Your task to perform on an android device: Open the stopwatch Image 0: 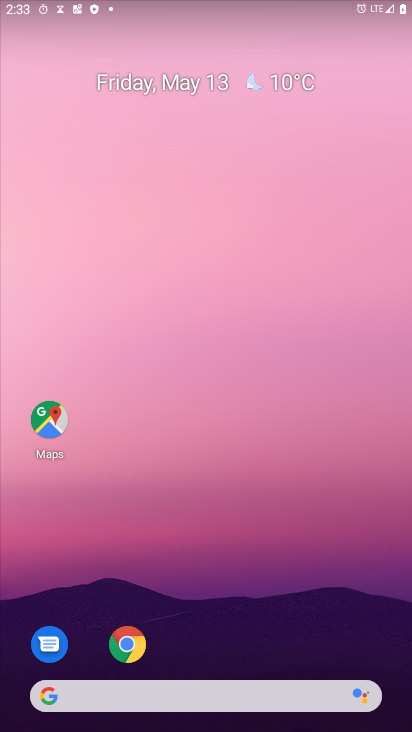
Step 0: drag from (243, 725) to (243, 134)
Your task to perform on an android device: Open the stopwatch Image 1: 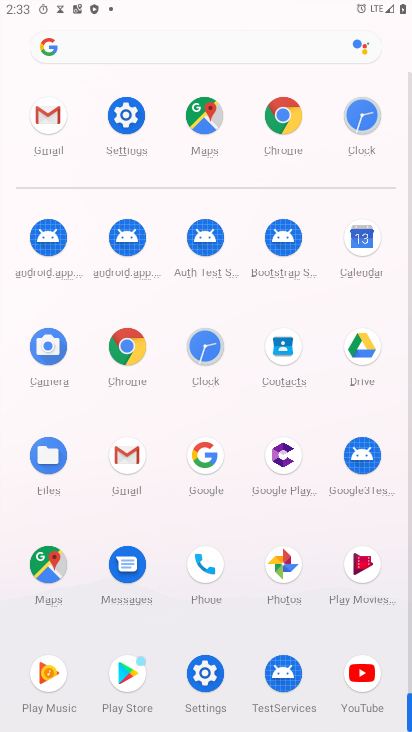
Step 1: click (202, 342)
Your task to perform on an android device: Open the stopwatch Image 2: 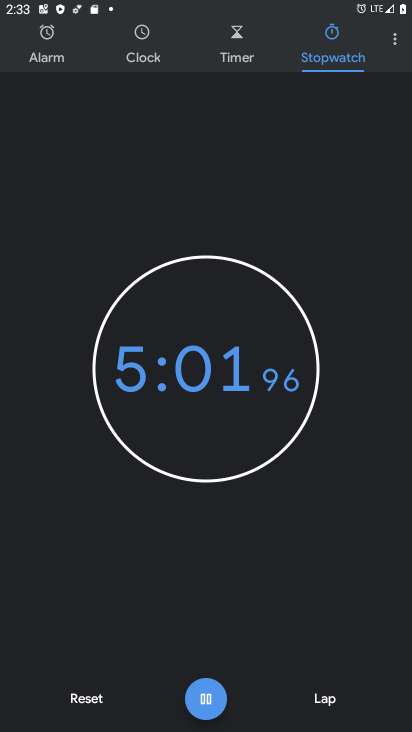
Step 2: task complete